Your task to perform on an android device: Go to display settings Image 0: 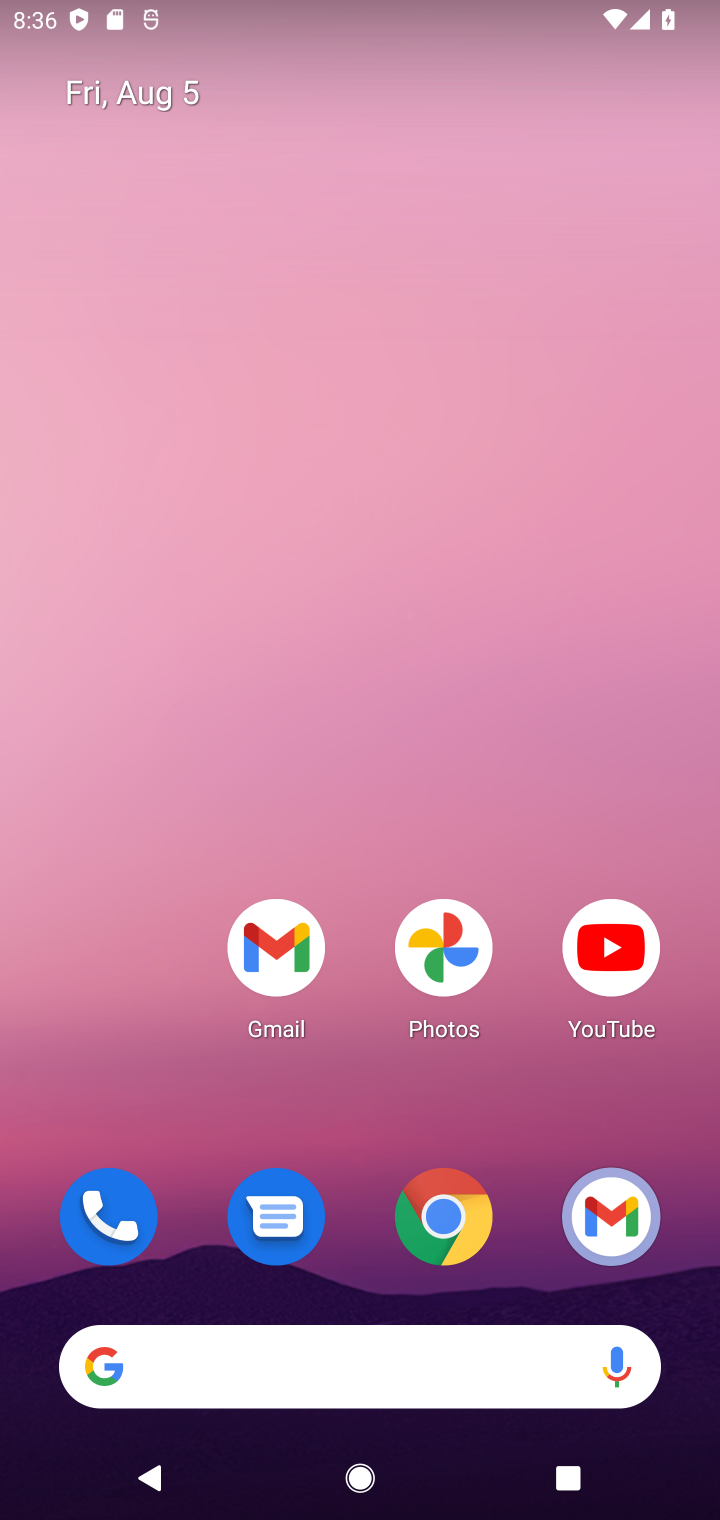
Step 0: drag from (371, 657) to (432, 229)
Your task to perform on an android device: Go to display settings Image 1: 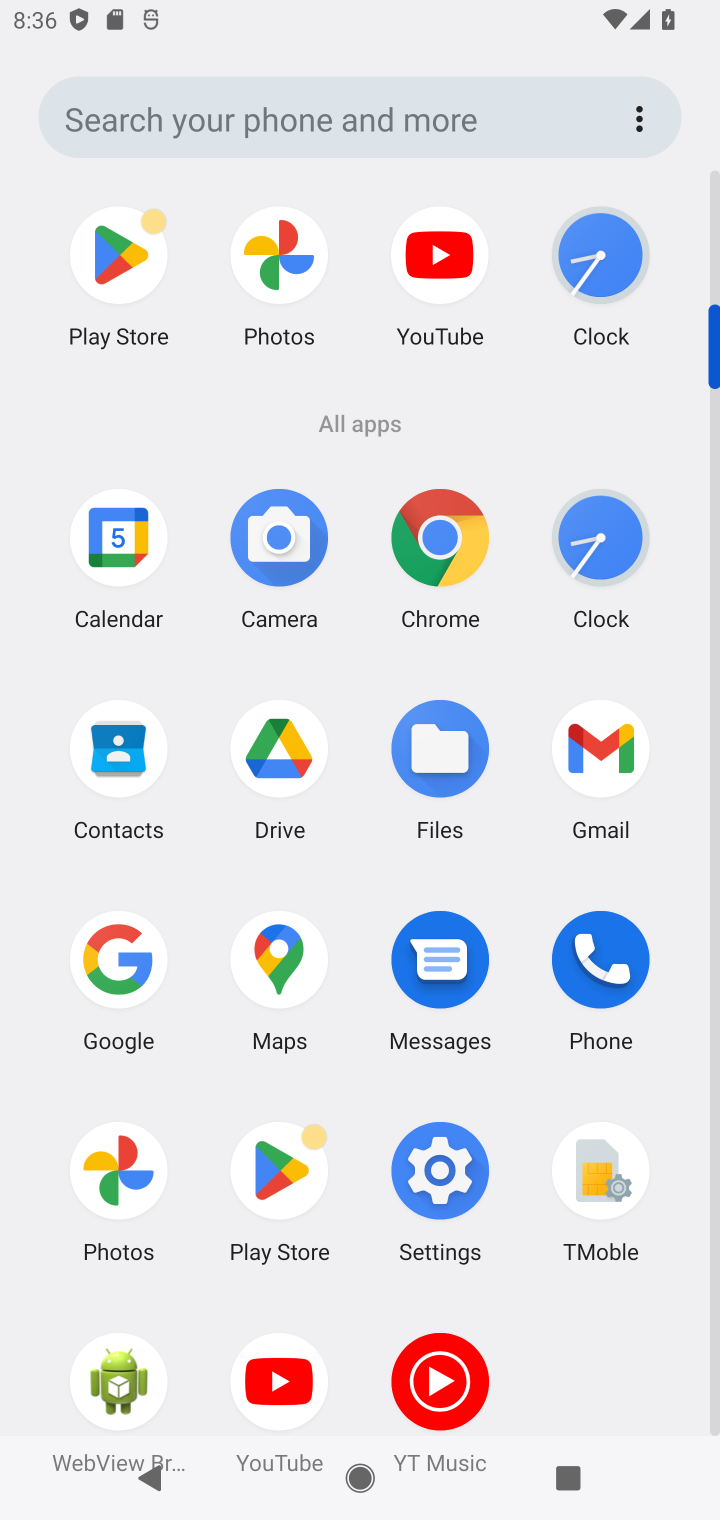
Step 1: click (429, 1181)
Your task to perform on an android device: Go to display settings Image 2: 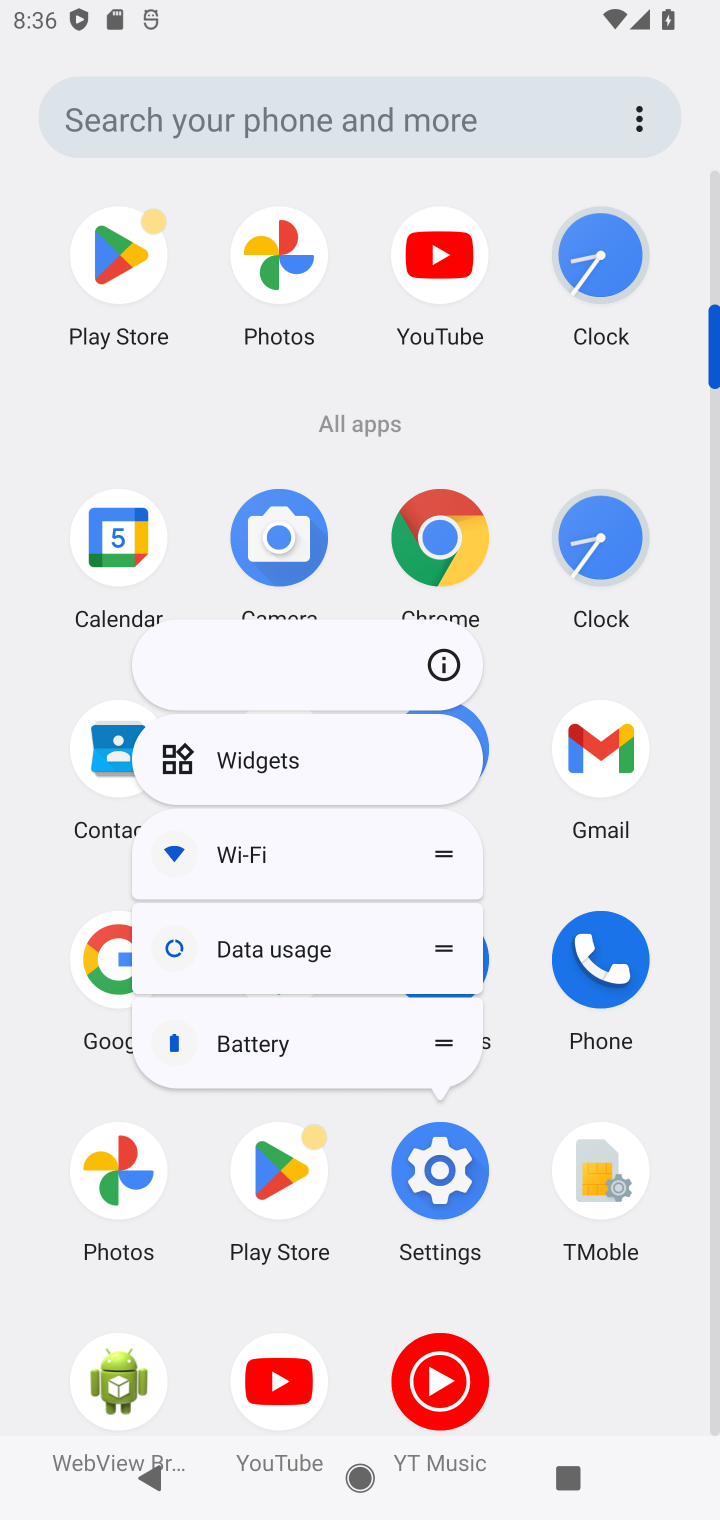
Step 2: click (426, 666)
Your task to perform on an android device: Go to display settings Image 3: 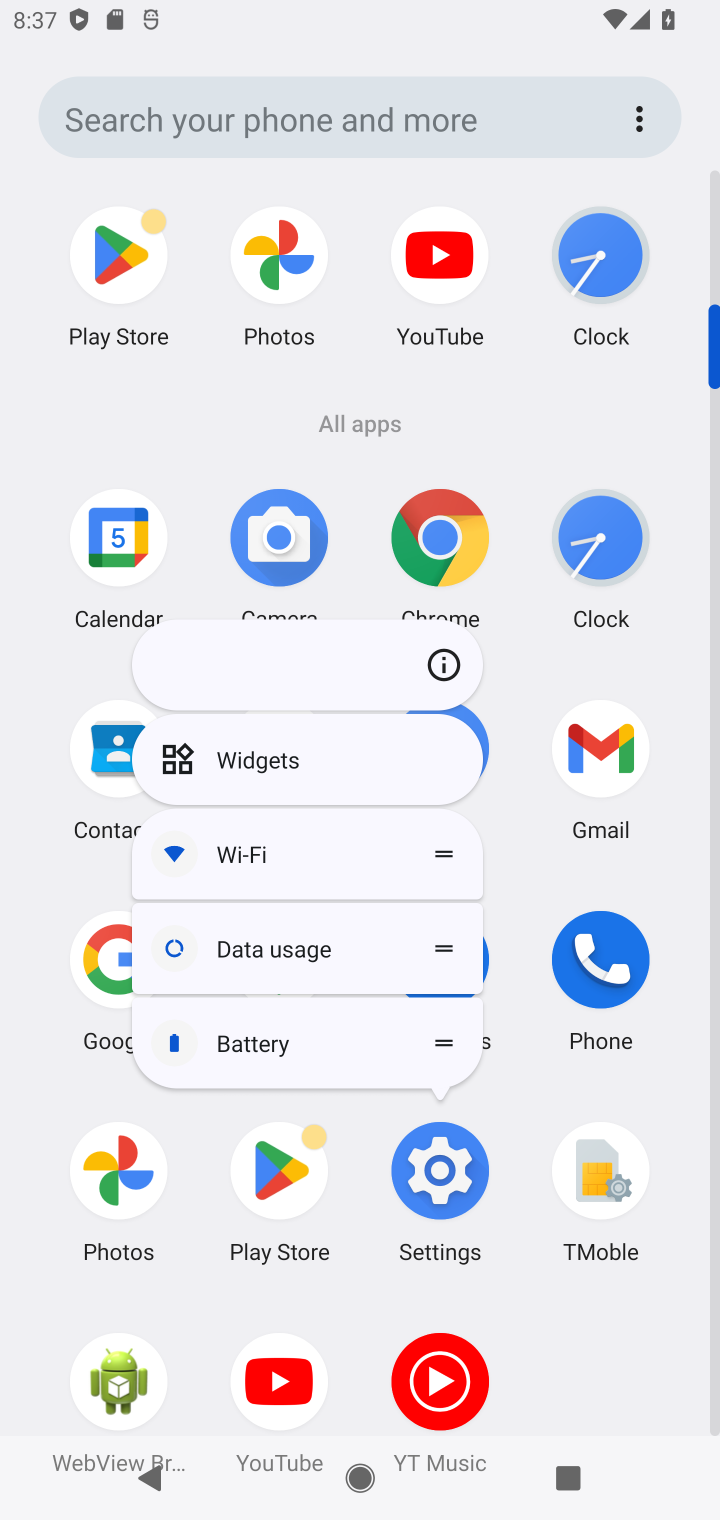
Step 3: click (465, 652)
Your task to perform on an android device: Go to display settings Image 4: 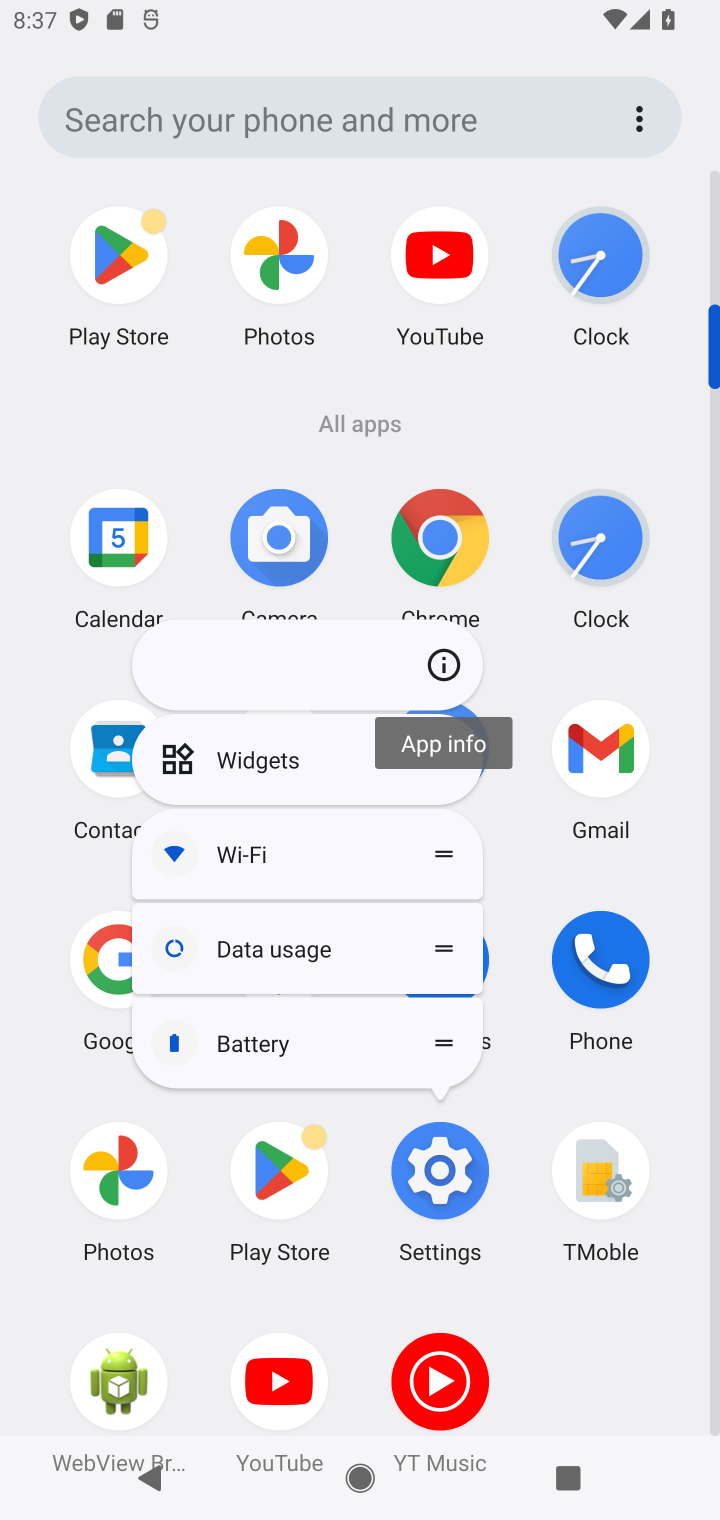
Step 4: click (441, 657)
Your task to perform on an android device: Go to display settings Image 5: 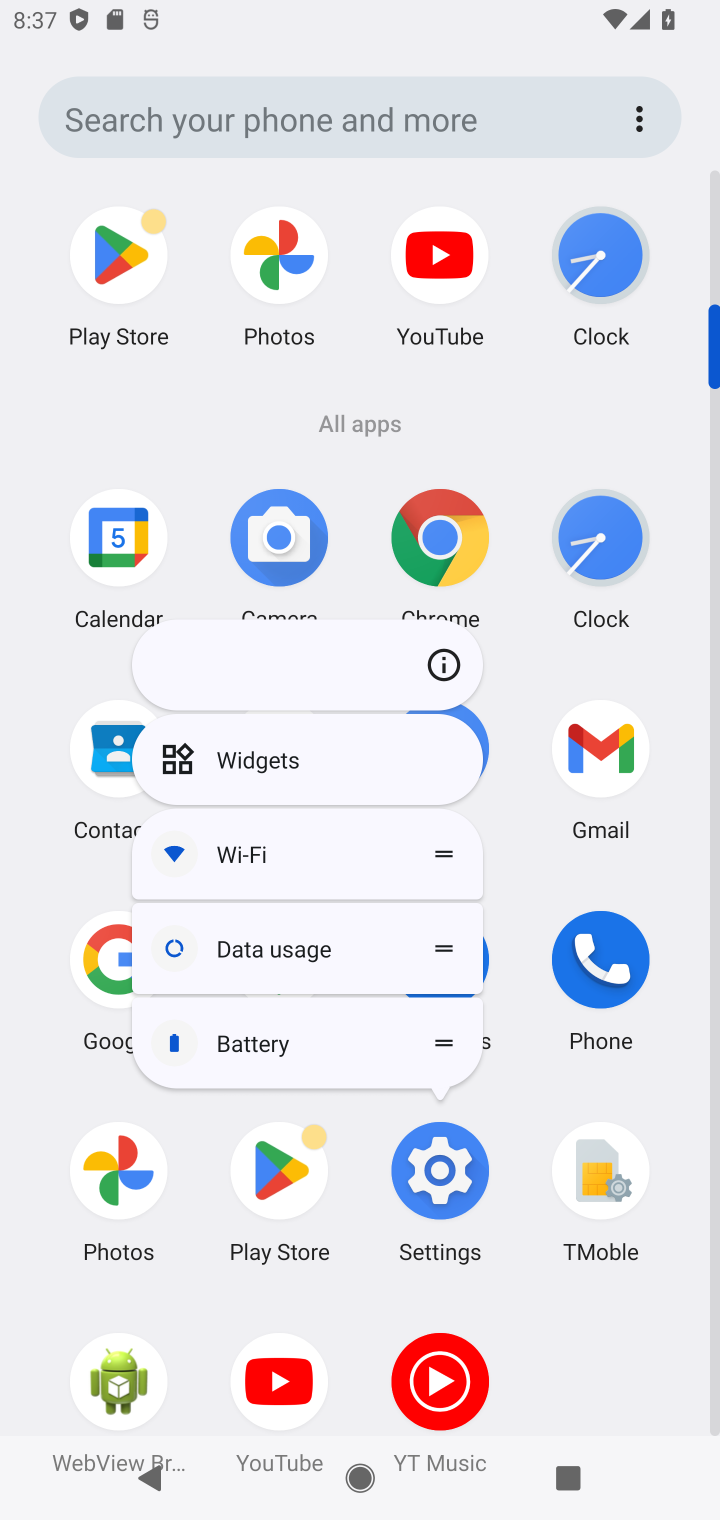
Step 5: click (444, 656)
Your task to perform on an android device: Go to display settings Image 6: 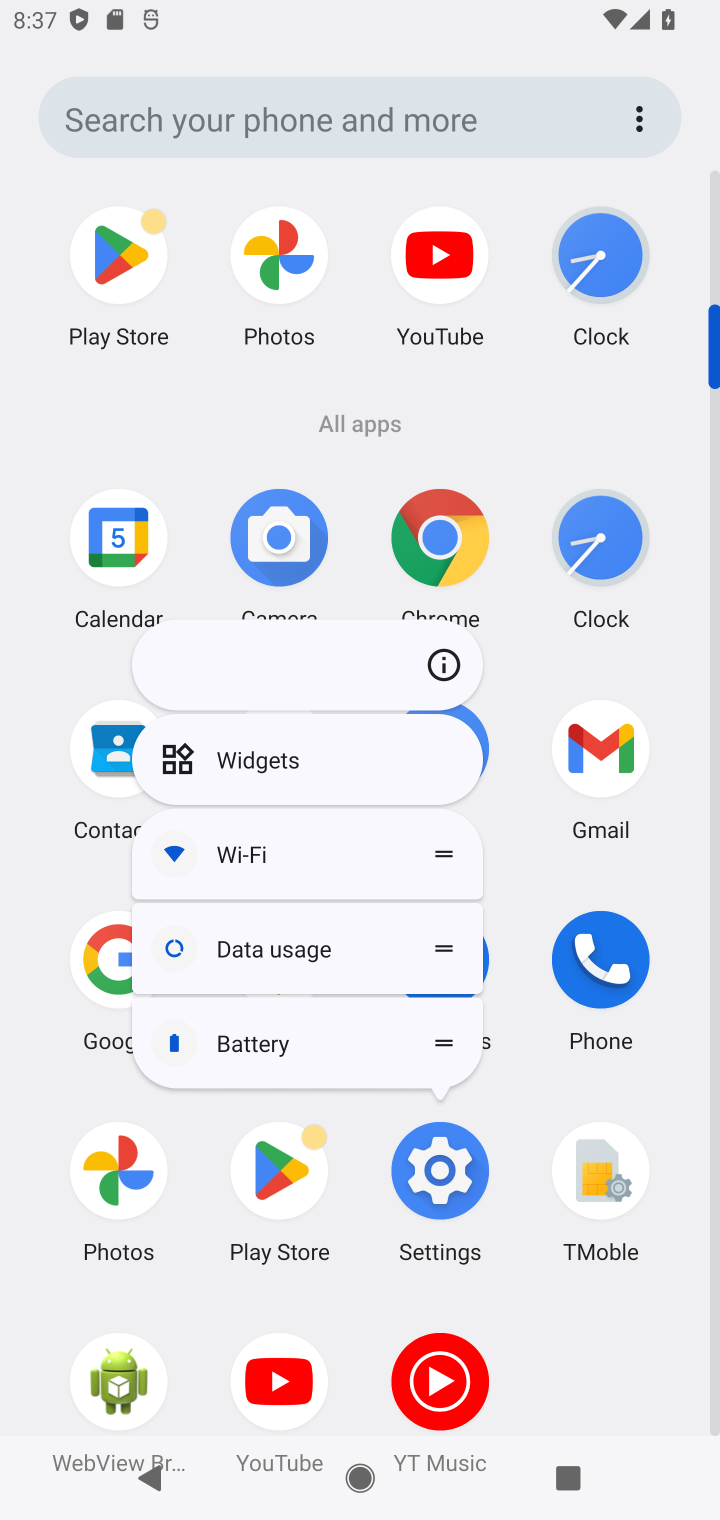
Step 6: click (420, 658)
Your task to perform on an android device: Go to display settings Image 7: 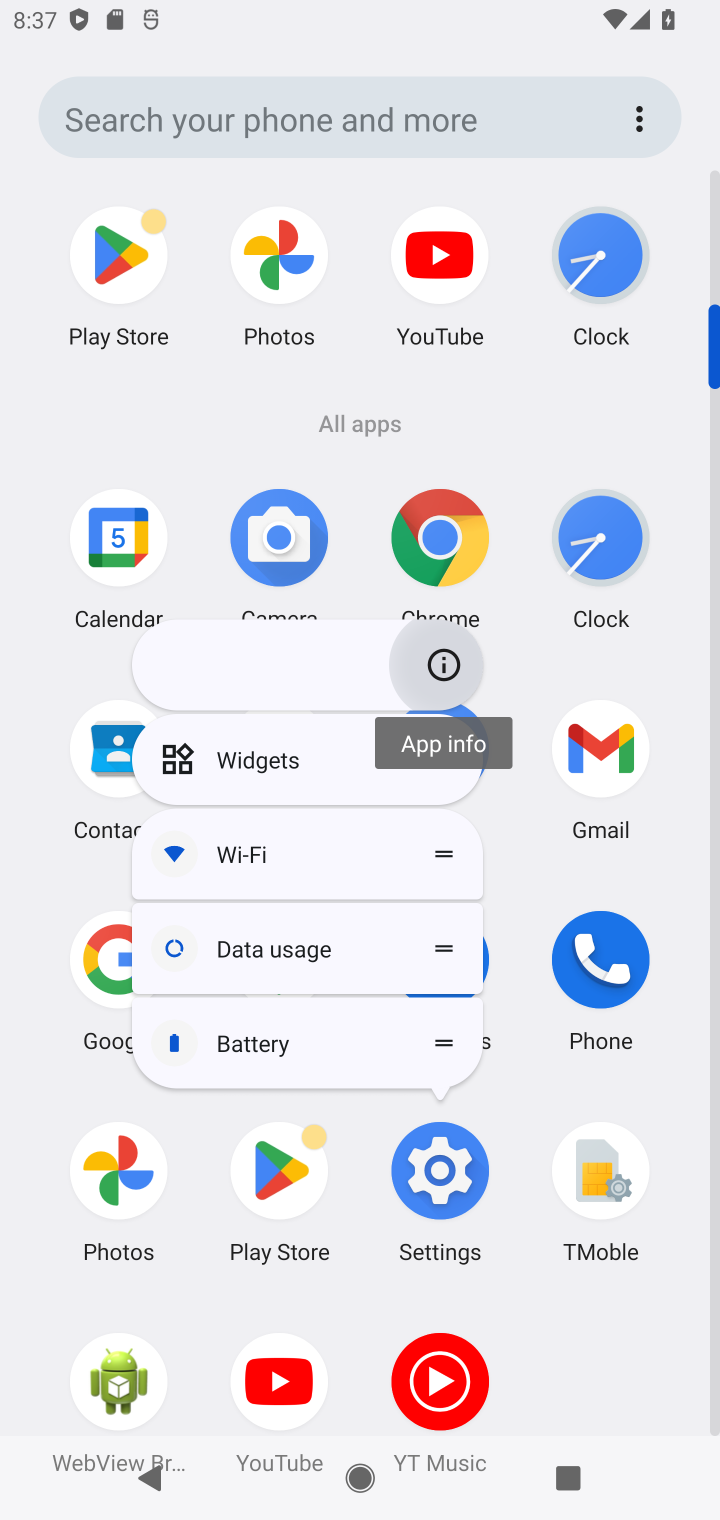
Step 7: click (420, 658)
Your task to perform on an android device: Go to display settings Image 8: 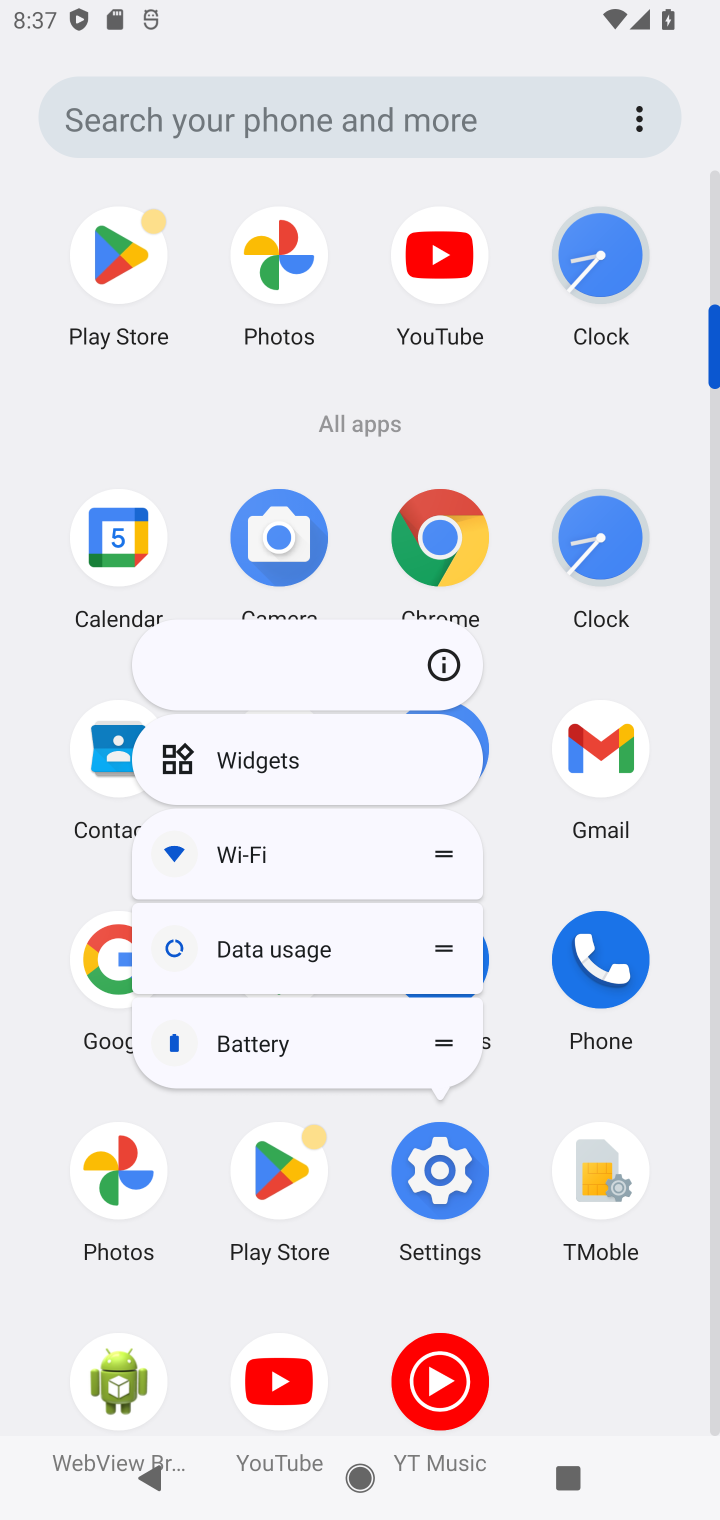
Step 8: click (452, 648)
Your task to perform on an android device: Go to display settings Image 9: 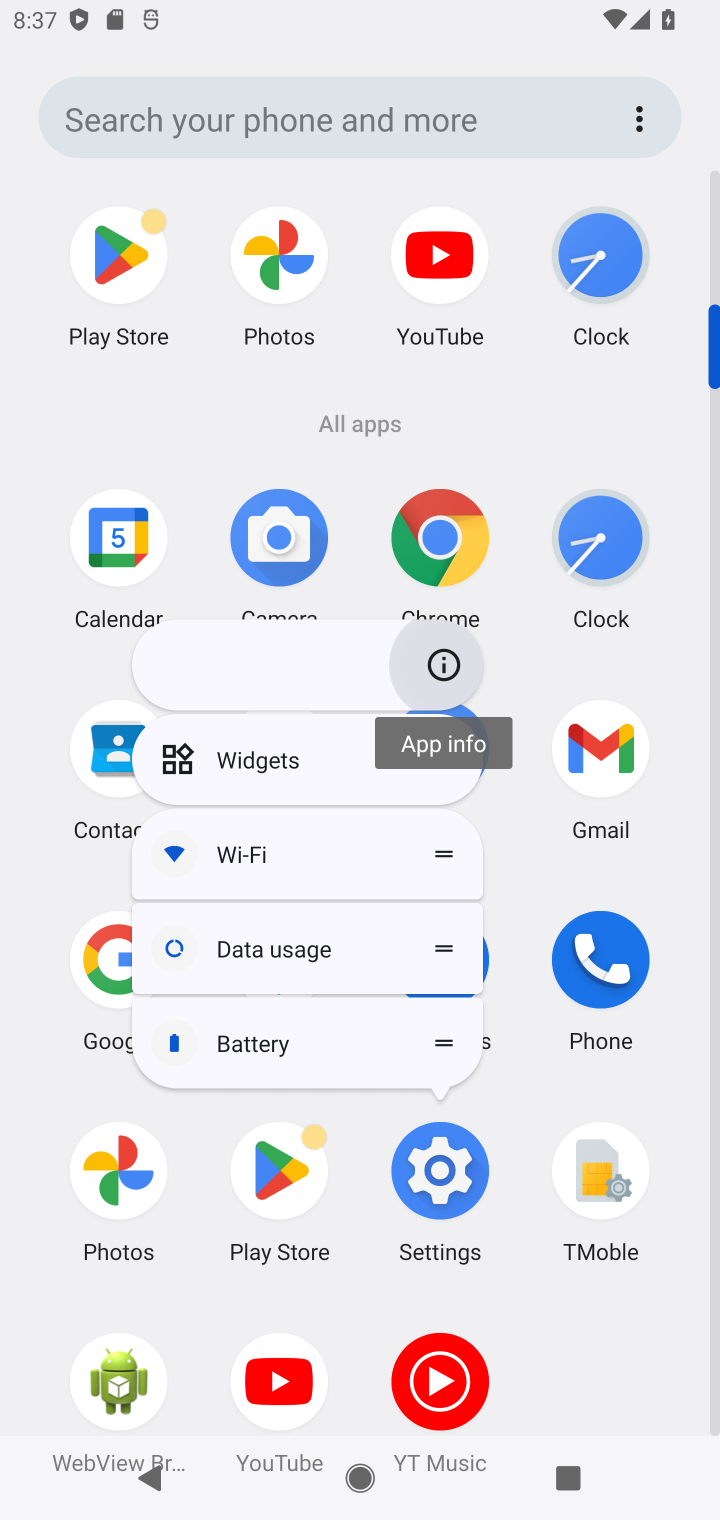
Step 9: click (446, 650)
Your task to perform on an android device: Go to display settings Image 10: 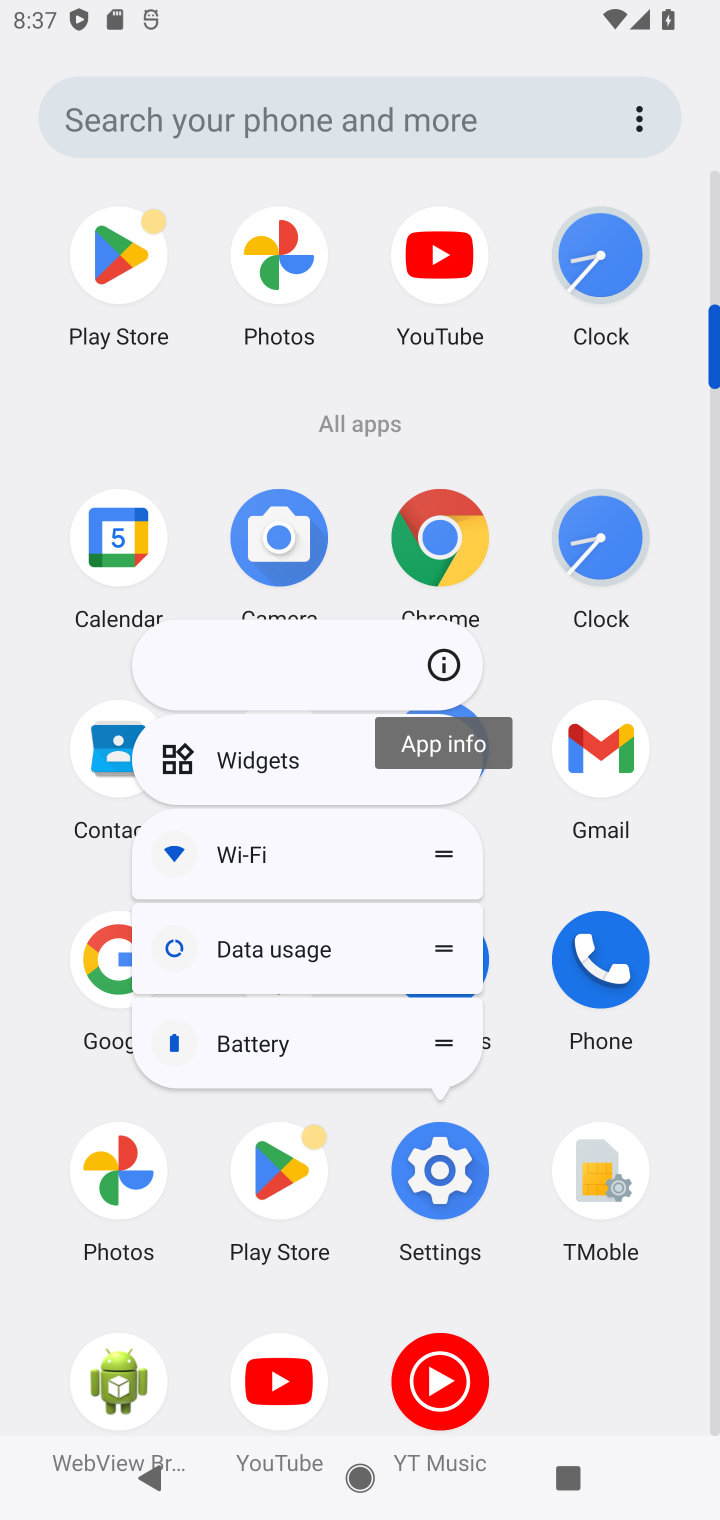
Step 10: click (425, 1170)
Your task to perform on an android device: Go to display settings Image 11: 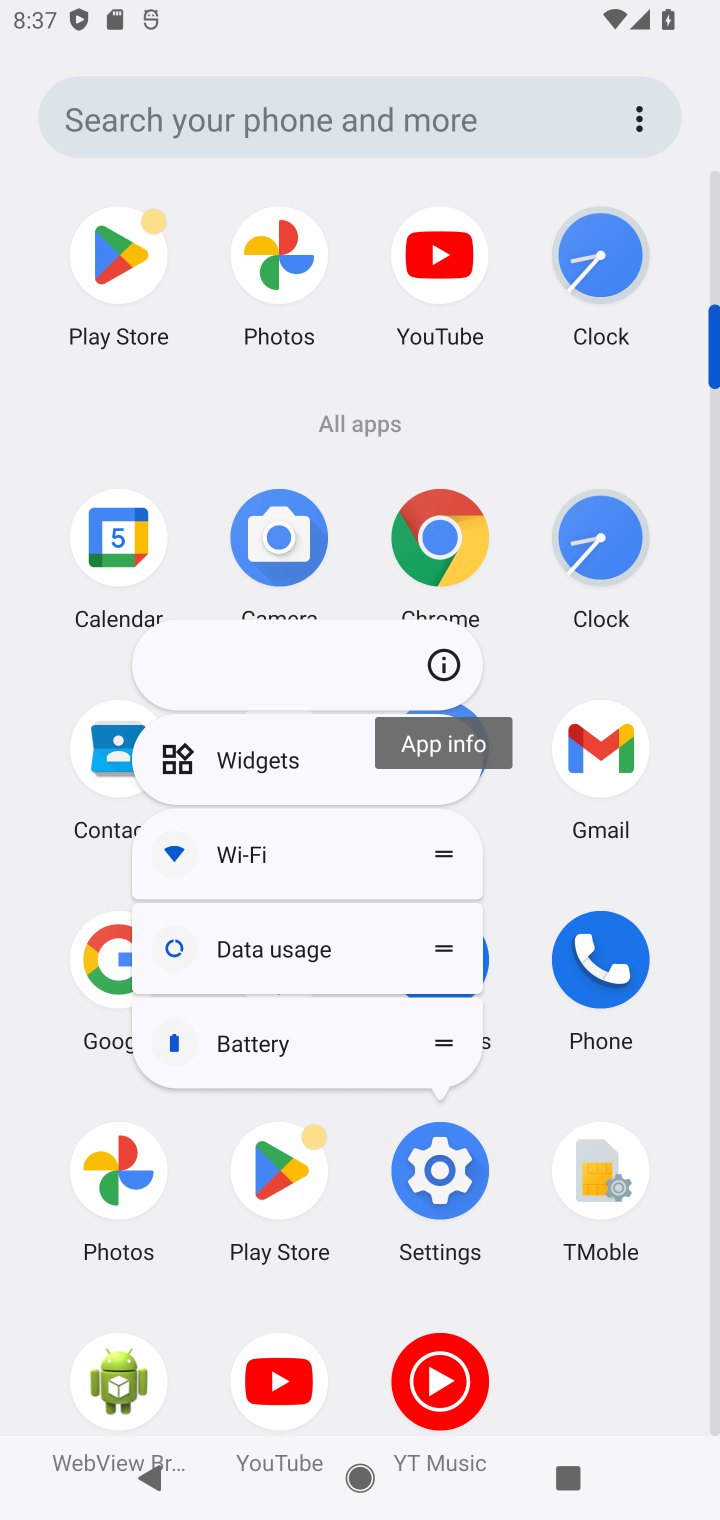
Step 11: click (420, 1168)
Your task to perform on an android device: Go to display settings Image 12: 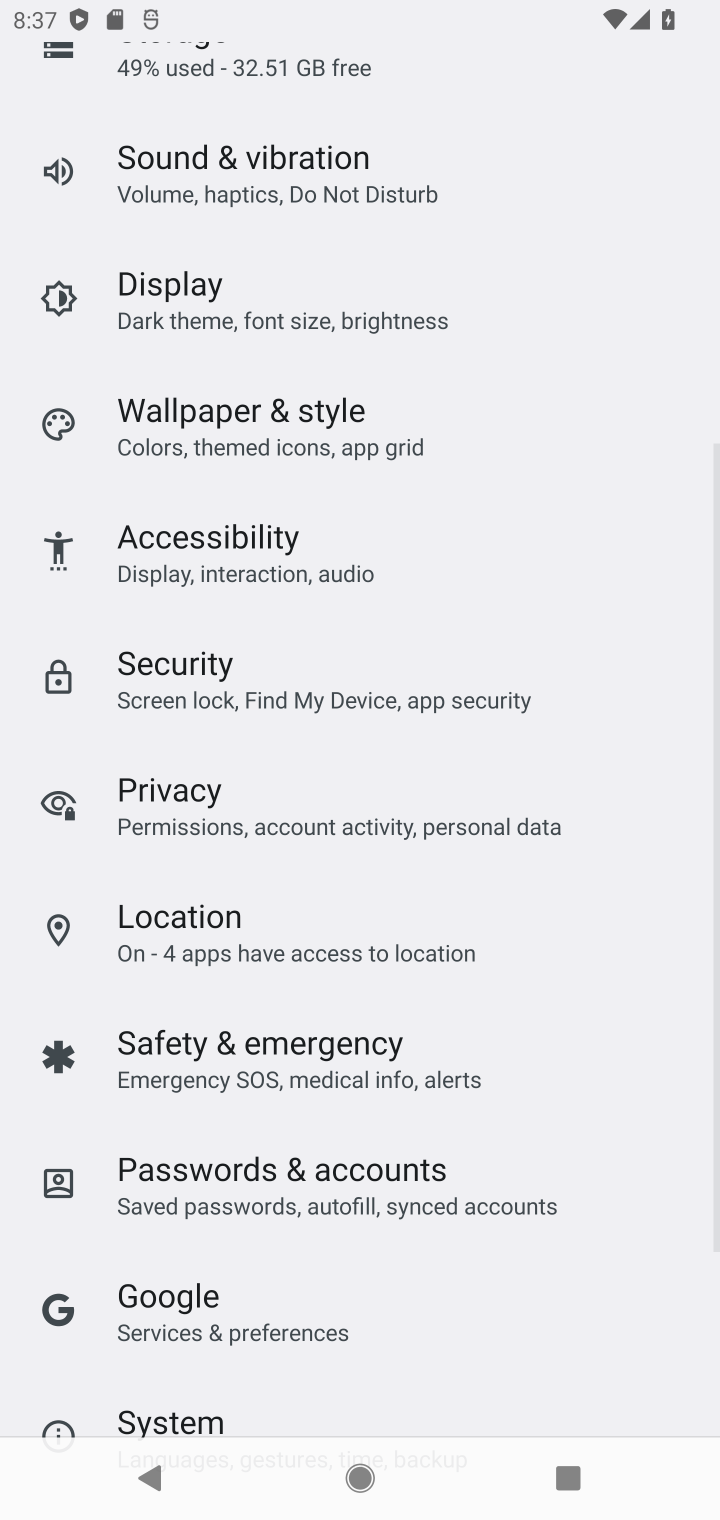
Step 12: drag from (420, 1168) to (519, 302)
Your task to perform on an android device: Go to display settings Image 13: 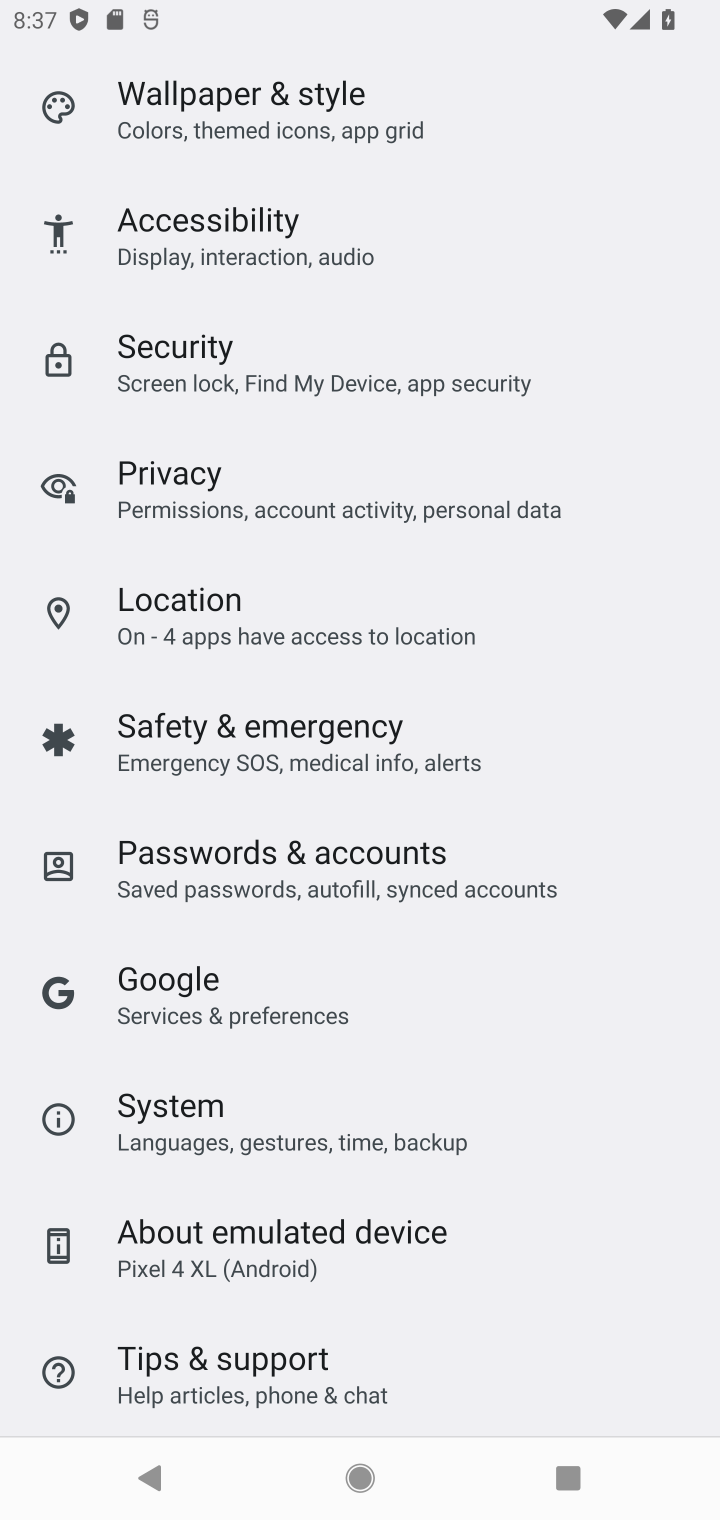
Step 13: drag from (409, 538) to (340, 1350)
Your task to perform on an android device: Go to display settings Image 14: 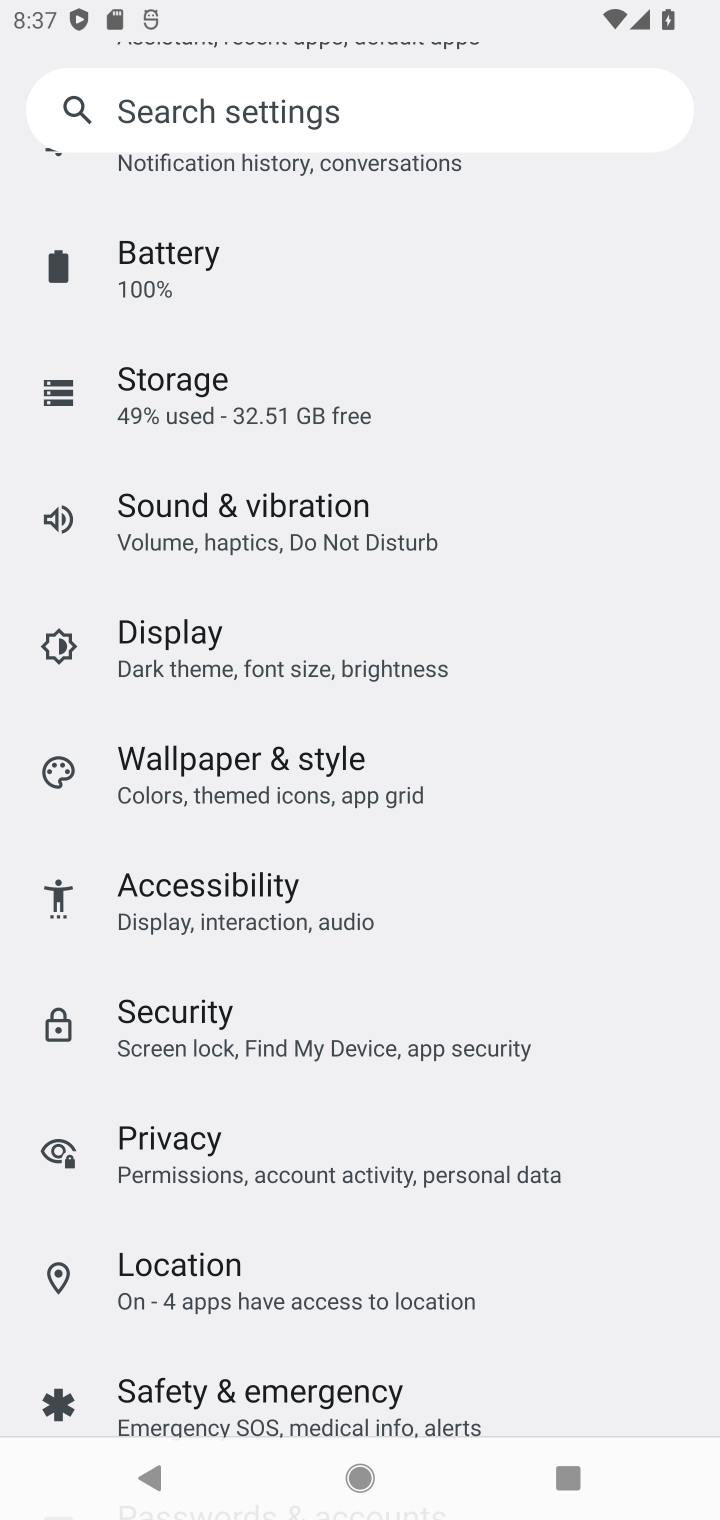
Step 14: click (227, 642)
Your task to perform on an android device: Go to display settings Image 15: 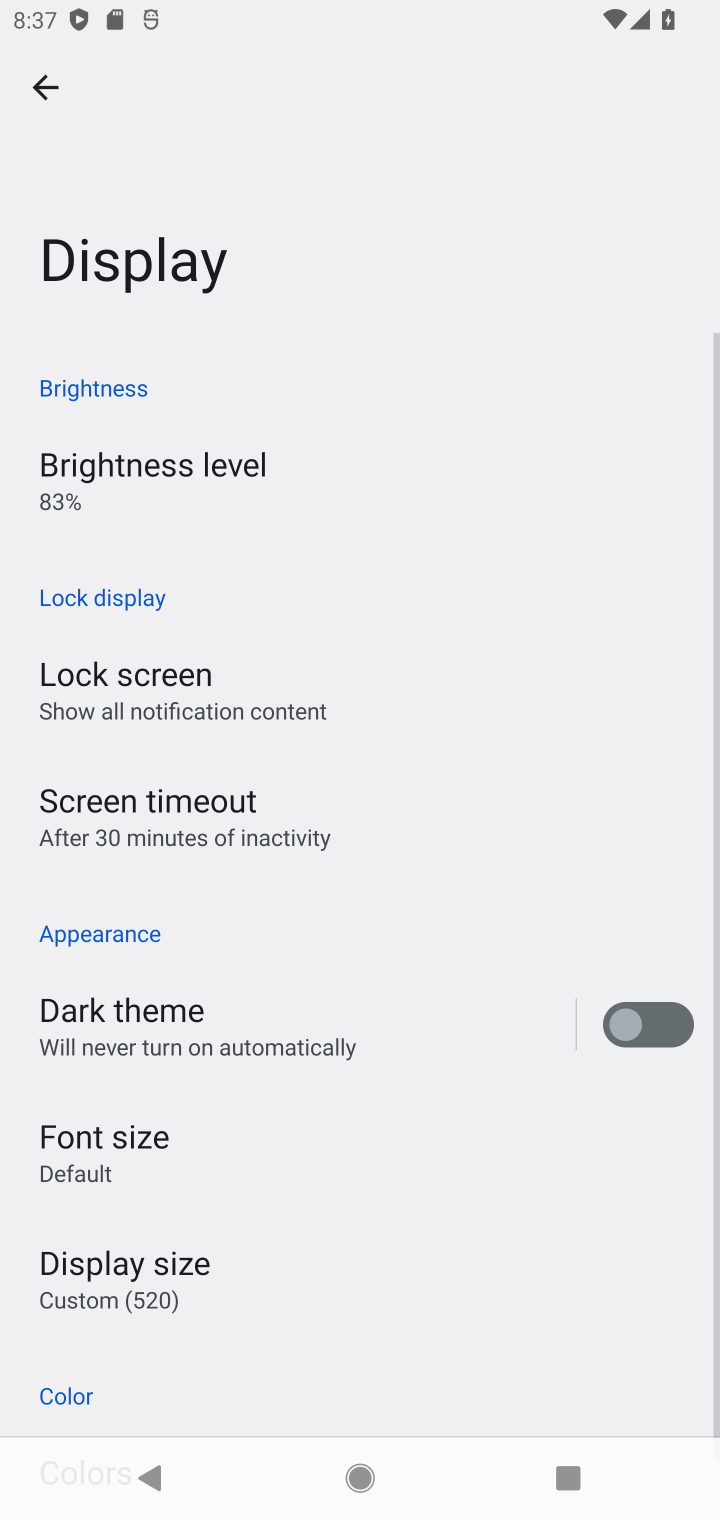
Step 15: task complete